Your task to perform on an android device: find snoozed emails in the gmail app Image 0: 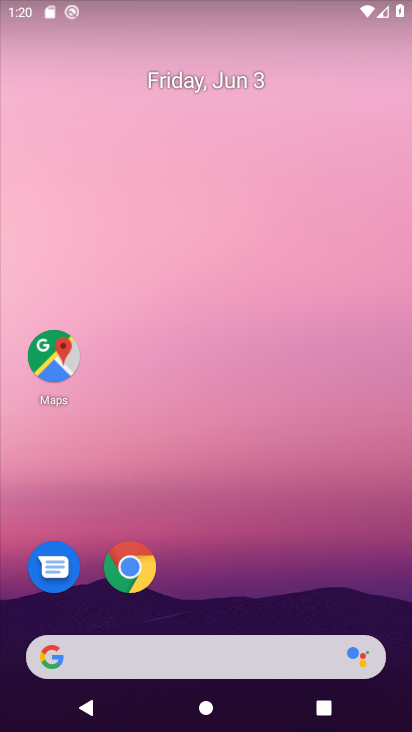
Step 0: drag from (191, 566) to (248, 160)
Your task to perform on an android device: find snoozed emails in the gmail app Image 1: 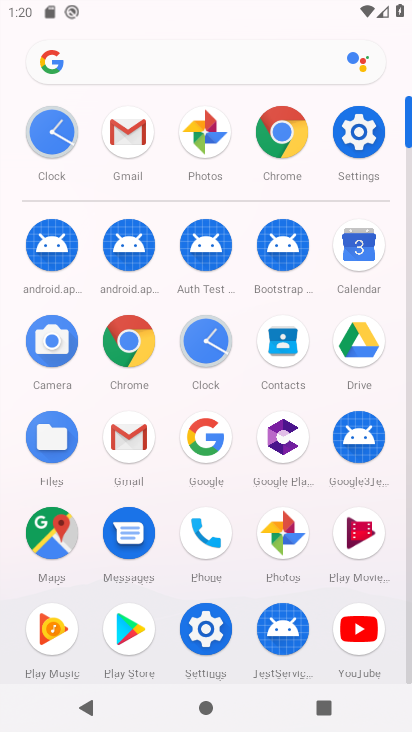
Step 1: click (137, 429)
Your task to perform on an android device: find snoozed emails in the gmail app Image 2: 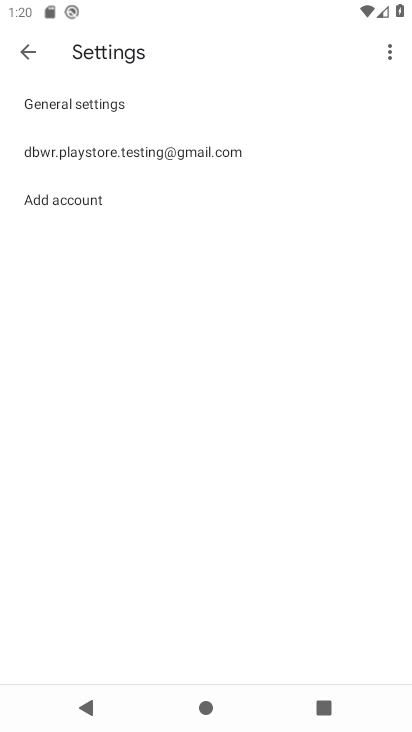
Step 2: click (26, 52)
Your task to perform on an android device: find snoozed emails in the gmail app Image 3: 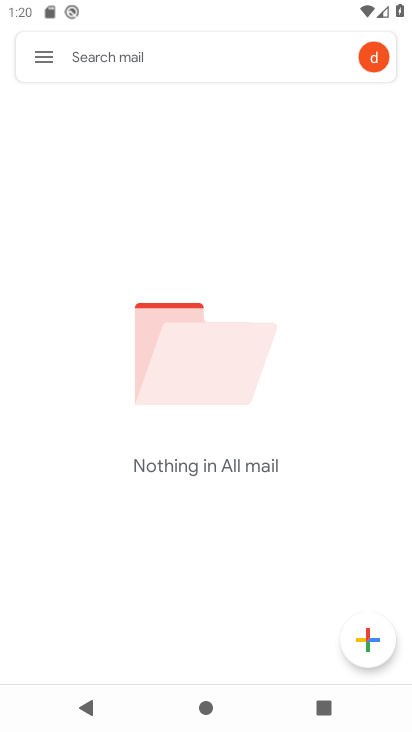
Step 3: click (46, 54)
Your task to perform on an android device: find snoozed emails in the gmail app Image 4: 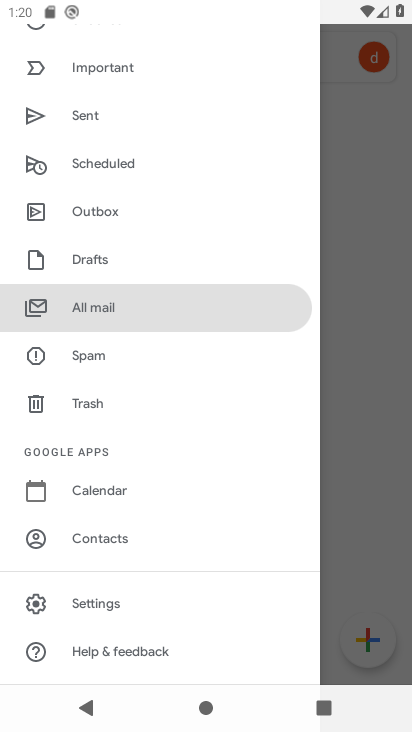
Step 4: drag from (130, 157) to (165, 573)
Your task to perform on an android device: find snoozed emails in the gmail app Image 5: 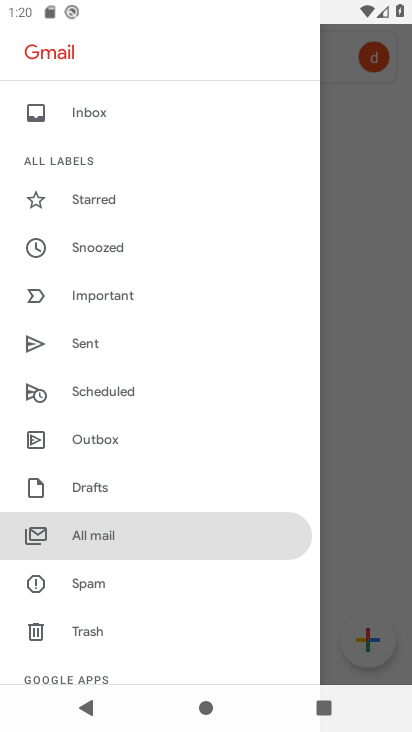
Step 5: click (134, 246)
Your task to perform on an android device: find snoozed emails in the gmail app Image 6: 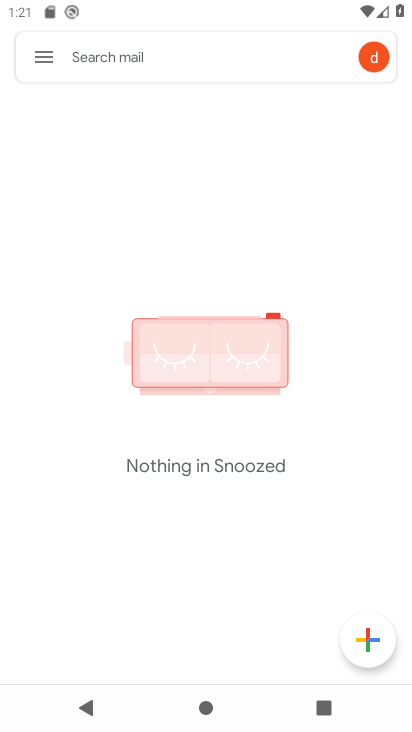
Step 6: task complete